Your task to perform on an android device: add a label to a message in the gmail app Image 0: 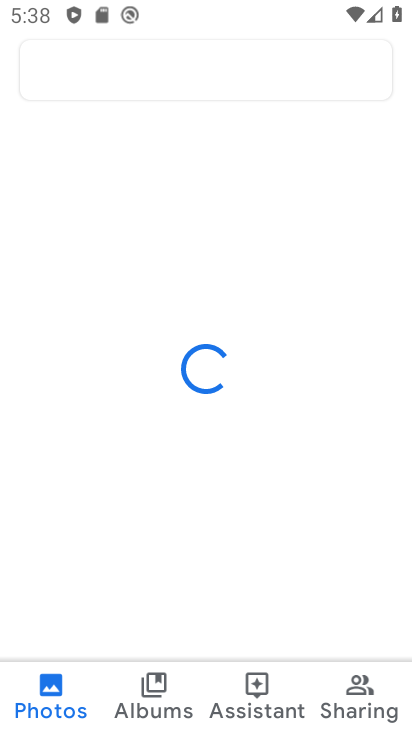
Step 0: press back button
Your task to perform on an android device: add a label to a message in the gmail app Image 1: 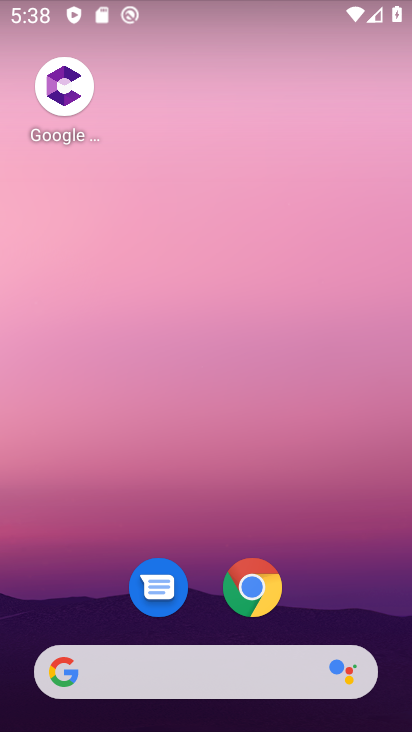
Step 1: drag from (281, 74) to (274, 5)
Your task to perform on an android device: add a label to a message in the gmail app Image 2: 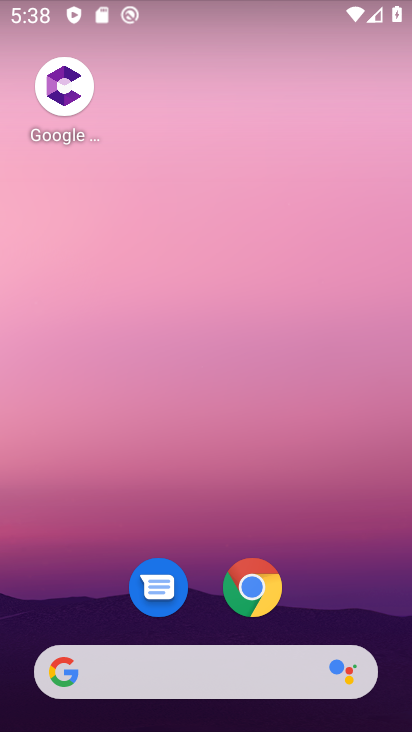
Step 2: drag from (241, 121) to (228, 51)
Your task to perform on an android device: add a label to a message in the gmail app Image 3: 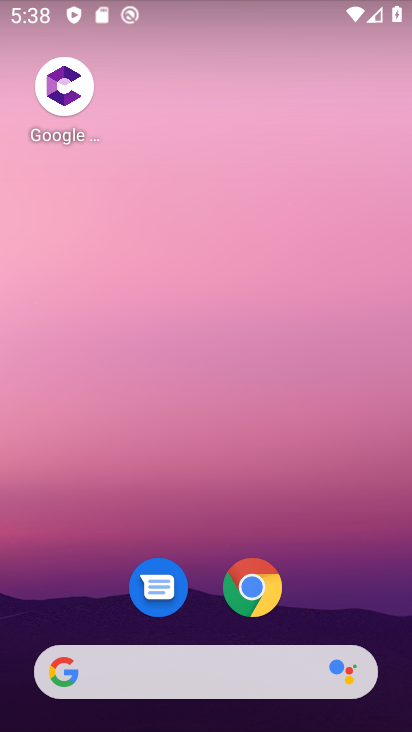
Step 3: drag from (289, 540) to (220, 1)
Your task to perform on an android device: add a label to a message in the gmail app Image 4: 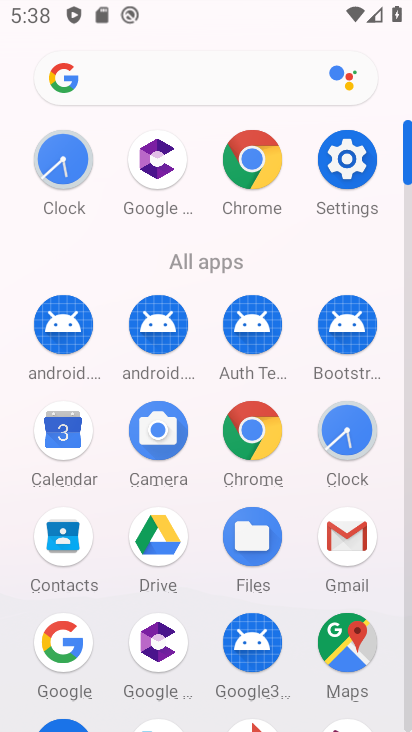
Step 4: click (349, 530)
Your task to perform on an android device: add a label to a message in the gmail app Image 5: 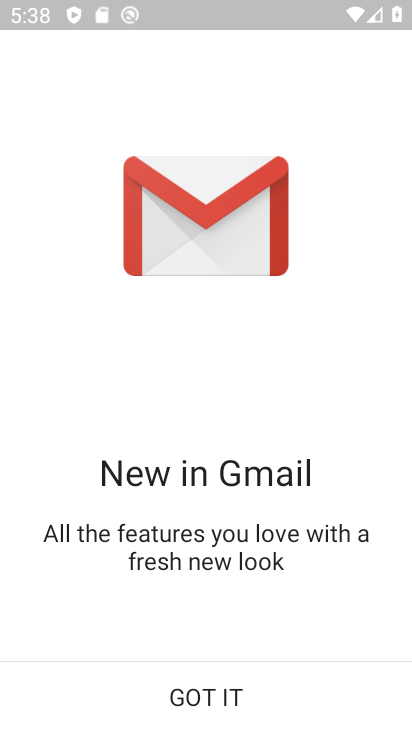
Step 5: click (230, 681)
Your task to perform on an android device: add a label to a message in the gmail app Image 6: 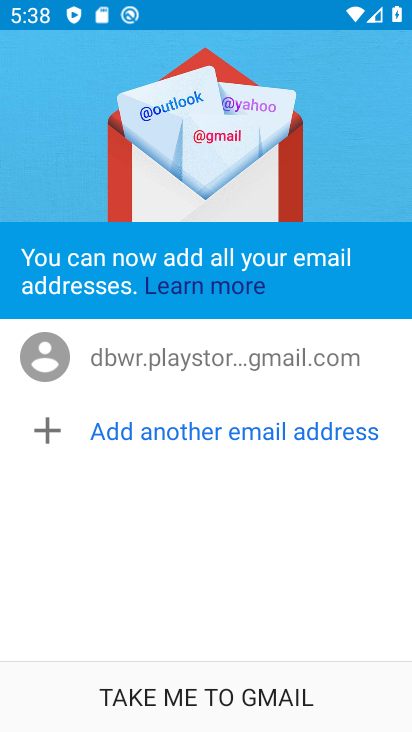
Step 6: click (204, 680)
Your task to perform on an android device: add a label to a message in the gmail app Image 7: 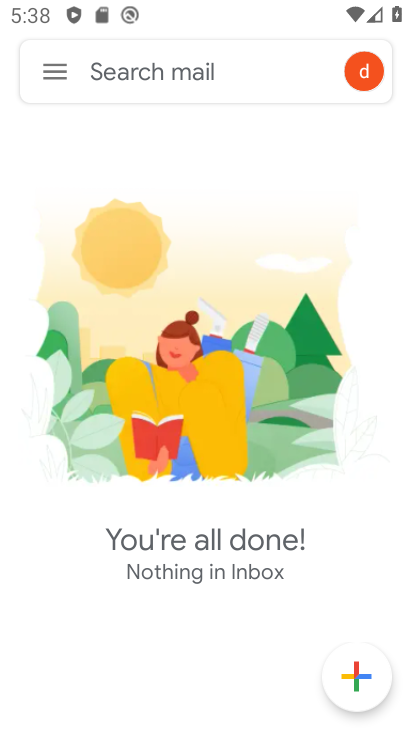
Step 7: click (64, 70)
Your task to perform on an android device: add a label to a message in the gmail app Image 8: 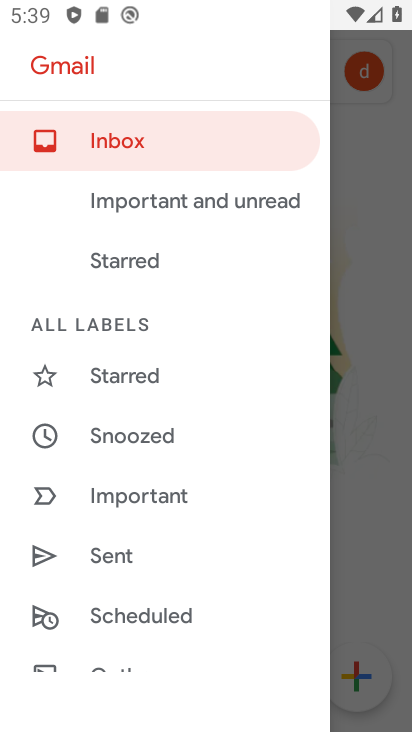
Step 8: click (115, 491)
Your task to perform on an android device: add a label to a message in the gmail app Image 9: 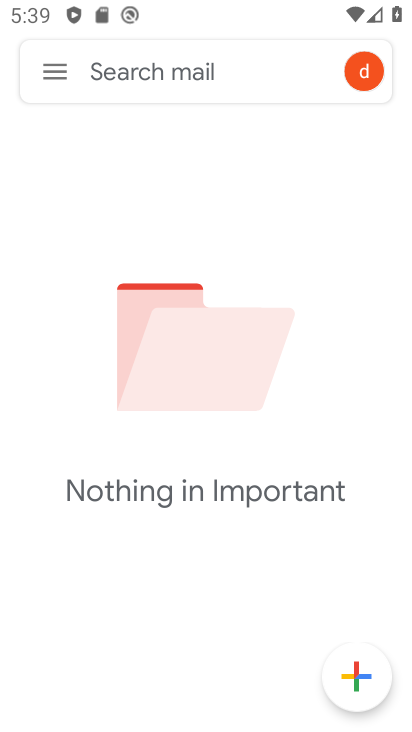
Step 9: click (56, 72)
Your task to perform on an android device: add a label to a message in the gmail app Image 10: 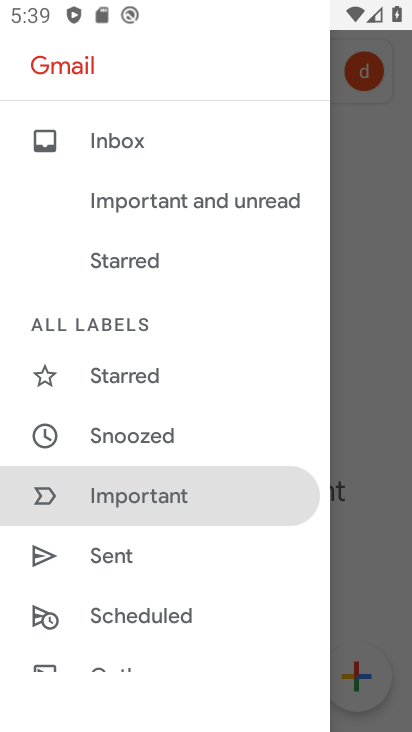
Step 10: click (143, 379)
Your task to perform on an android device: add a label to a message in the gmail app Image 11: 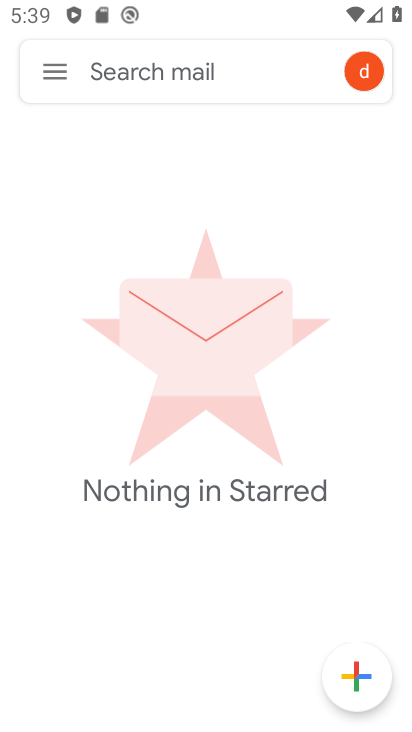
Step 11: task complete